Your task to perform on an android device: Open accessibility settings Image 0: 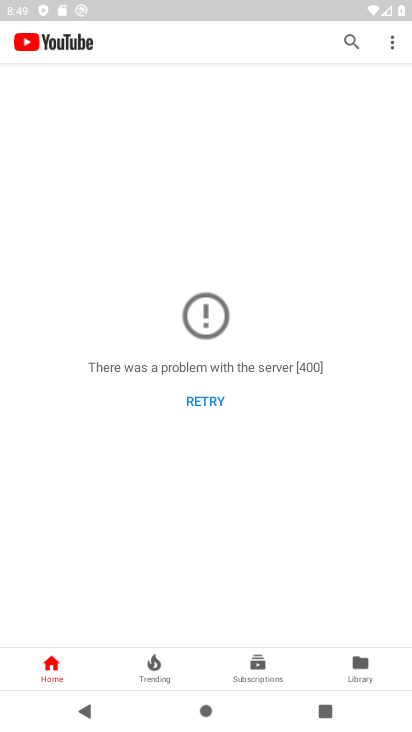
Step 0: press back button
Your task to perform on an android device: Open accessibility settings Image 1: 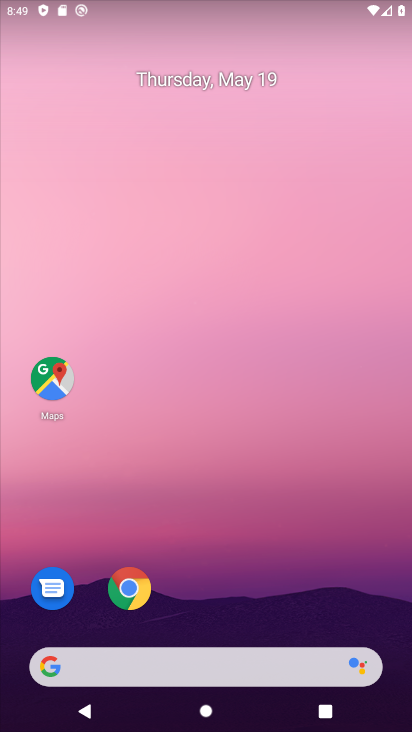
Step 1: drag from (170, 661) to (241, 193)
Your task to perform on an android device: Open accessibility settings Image 2: 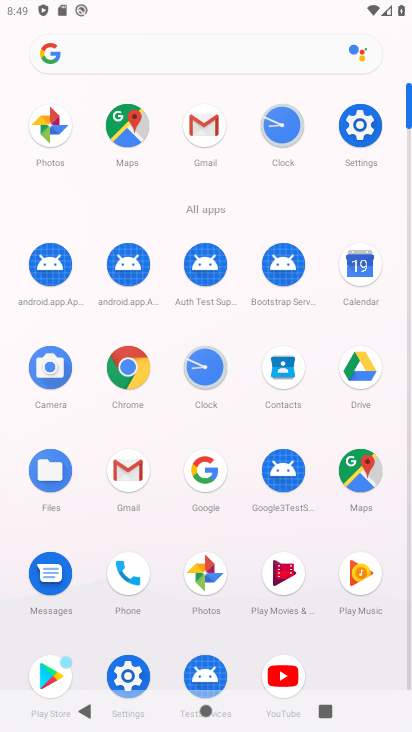
Step 2: click (123, 664)
Your task to perform on an android device: Open accessibility settings Image 3: 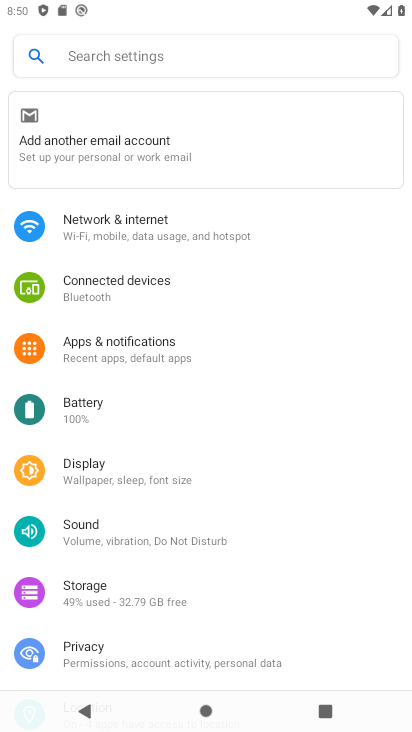
Step 3: drag from (144, 599) to (159, 56)
Your task to perform on an android device: Open accessibility settings Image 4: 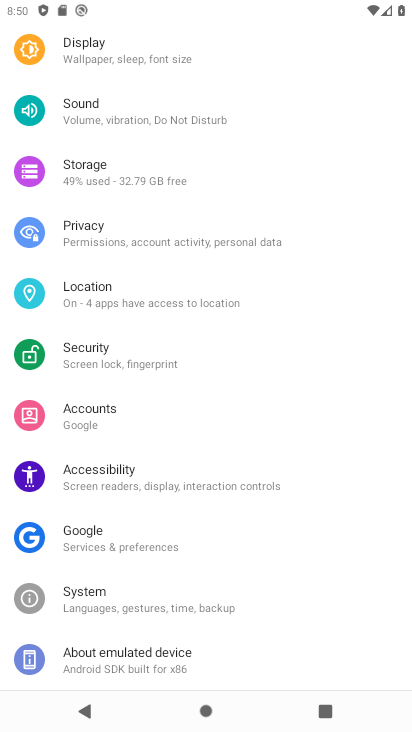
Step 4: click (132, 494)
Your task to perform on an android device: Open accessibility settings Image 5: 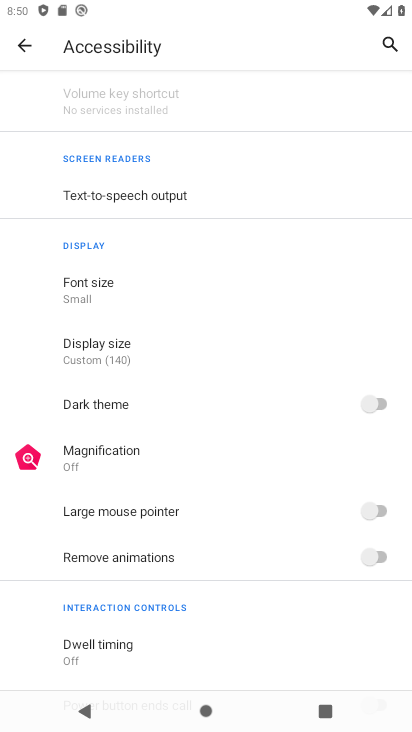
Step 5: task complete